Your task to perform on an android device: check storage Image 0: 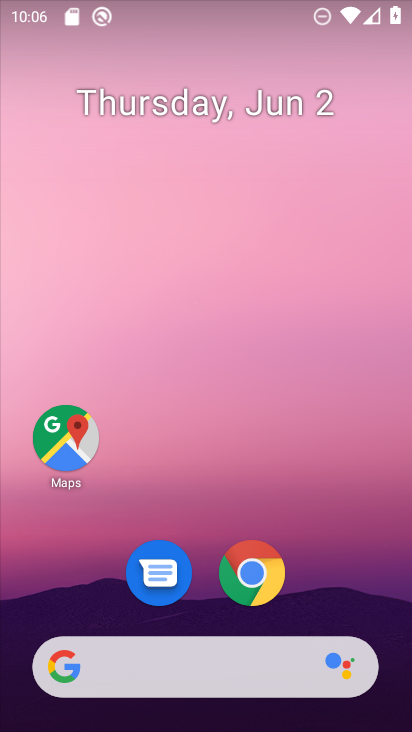
Step 0: drag from (338, 488) to (233, 136)
Your task to perform on an android device: check storage Image 1: 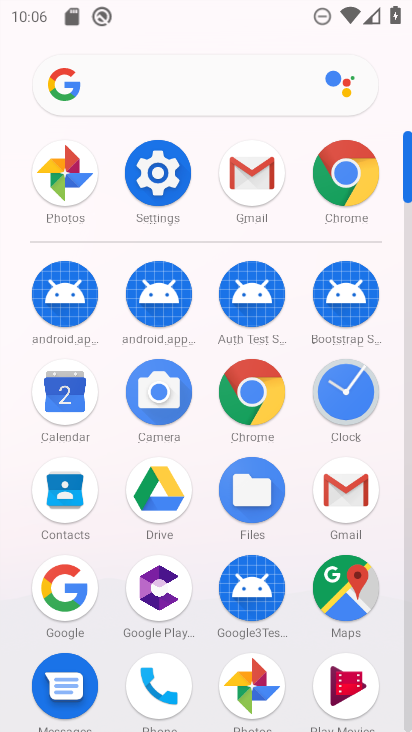
Step 1: drag from (289, 557) to (345, 302)
Your task to perform on an android device: check storage Image 2: 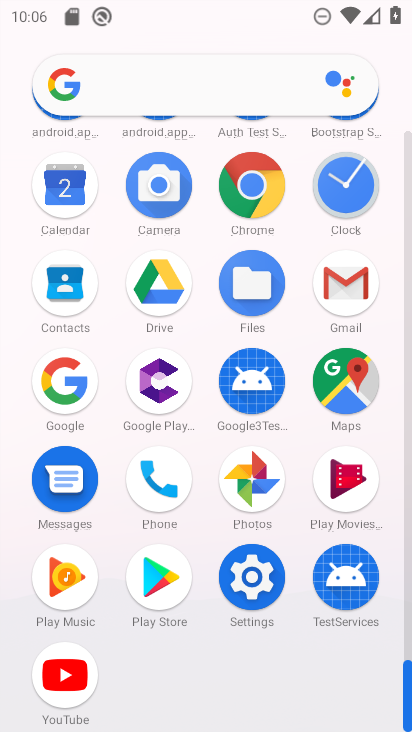
Step 2: click (254, 582)
Your task to perform on an android device: check storage Image 3: 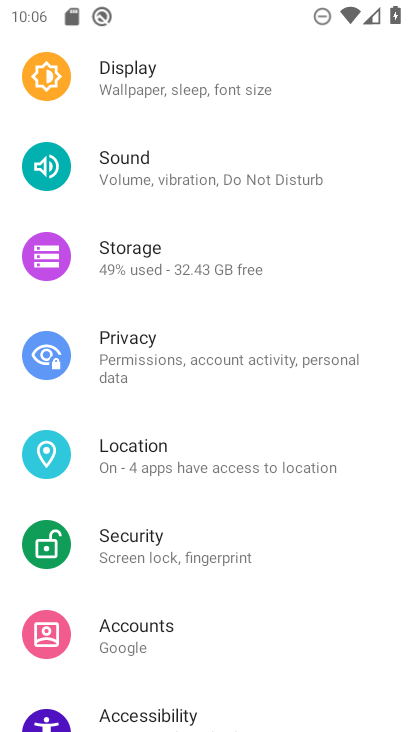
Step 3: click (215, 267)
Your task to perform on an android device: check storage Image 4: 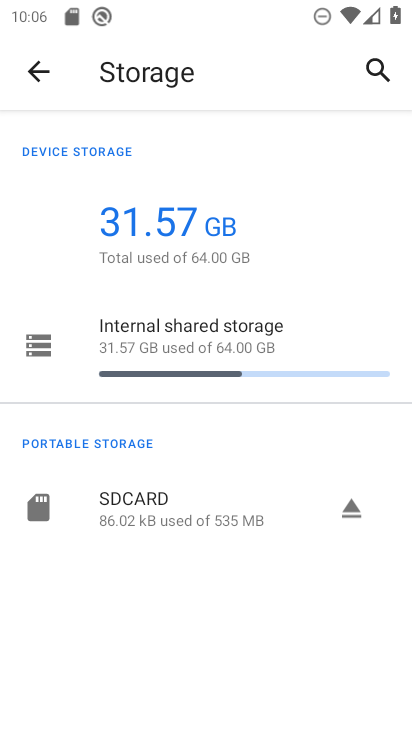
Step 4: task complete